Your task to perform on an android device: turn off data saver in the chrome app Image 0: 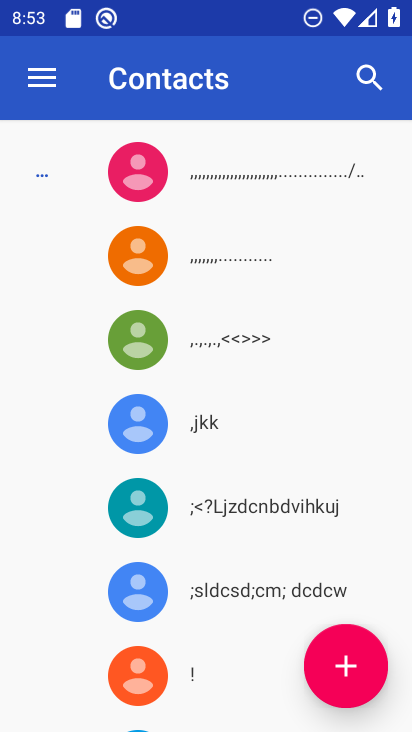
Step 0: press home button
Your task to perform on an android device: turn off data saver in the chrome app Image 1: 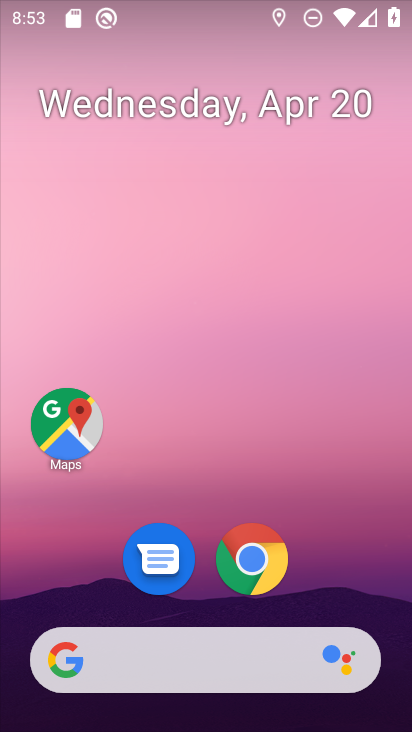
Step 1: click (258, 569)
Your task to perform on an android device: turn off data saver in the chrome app Image 2: 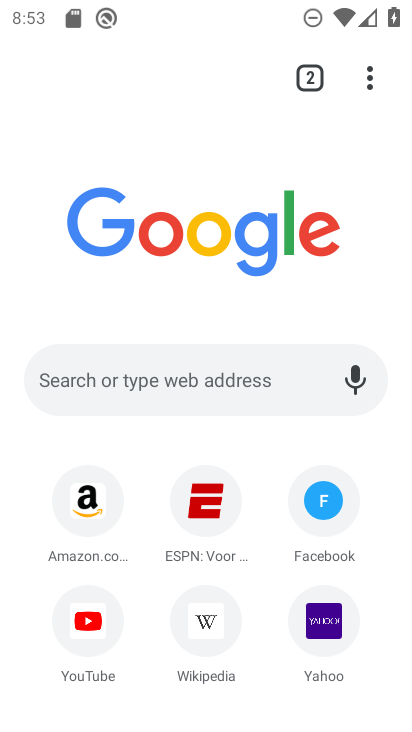
Step 2: click (368, 87)
Your task to perform on an android device: turn off data saver in the chrome app Image 3: 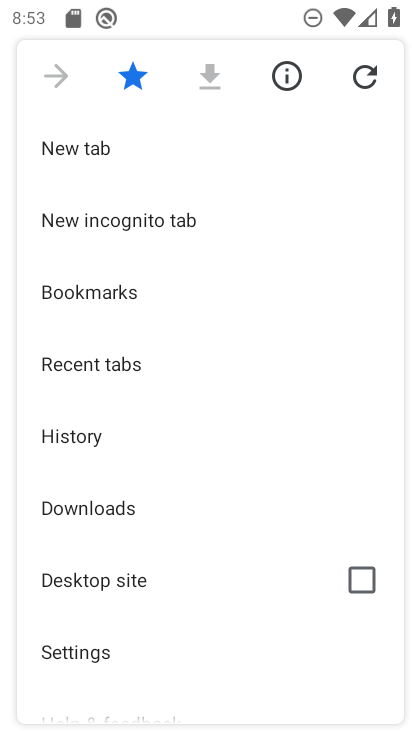
Step 3: click (84, 644)
Your task to perform on an android device: turn off data saver in the chrome app Image 4: 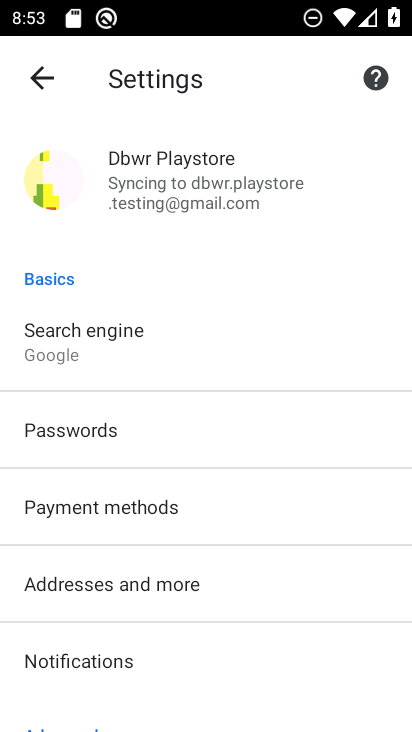
Step 4: drag from (265, 636) to (213, 404)
Your task to perform on an android device: turn off data saver in the chrome app Image 5: 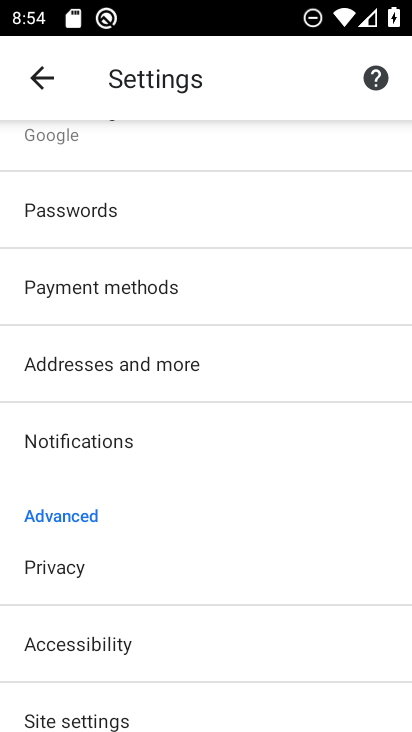
Step 5: drag from (195, 590) to (152, 352)
Your task to perform on an android device: turn off data saver in the chrome app Image 6: 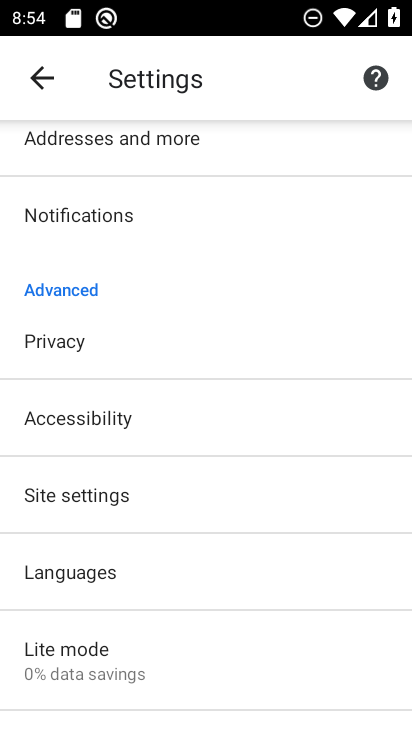
Step 6: click (76, 655)
Your task to perform on an android device: turn off data saver in the chrome app Image 7: 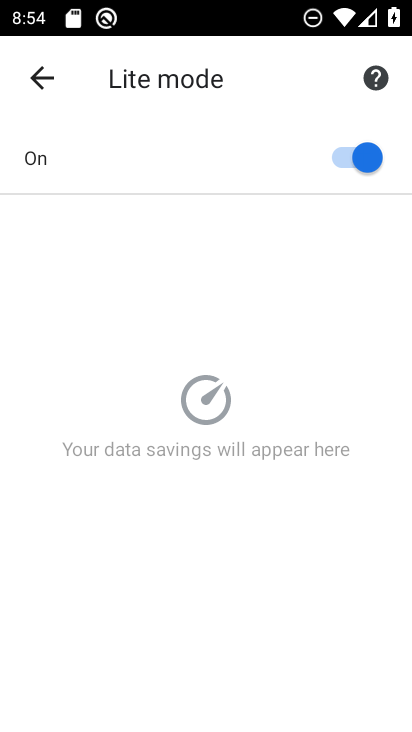
Step 7: click (333, 150)
Your task to perform on an android device: turn off data saver in the chrome app Image 8: 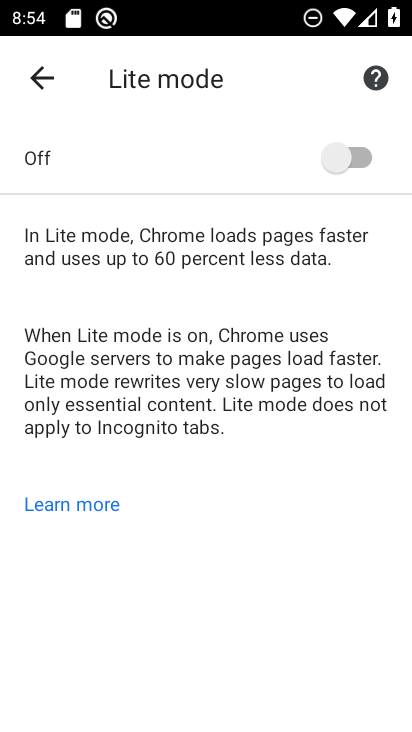
Step 8: task complete